Your task to perform on an android device: open the mobile data screen to see how much data has been used Image 0: 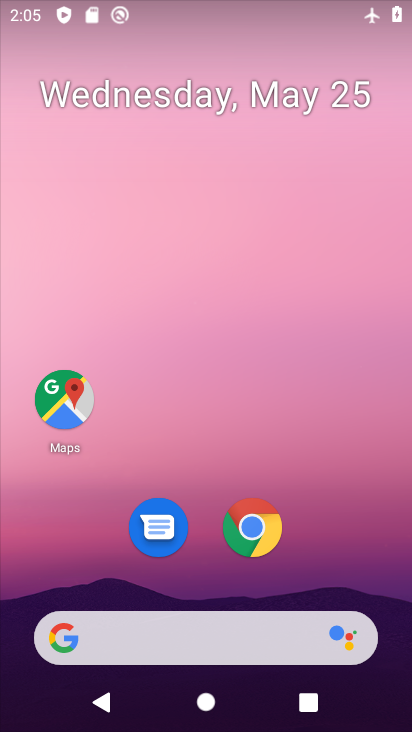
Step 0: drag from (178, 544) to (233, 113)
Your task to perform on an android device: open the mobile data screen to see how much data has been used Image 1: 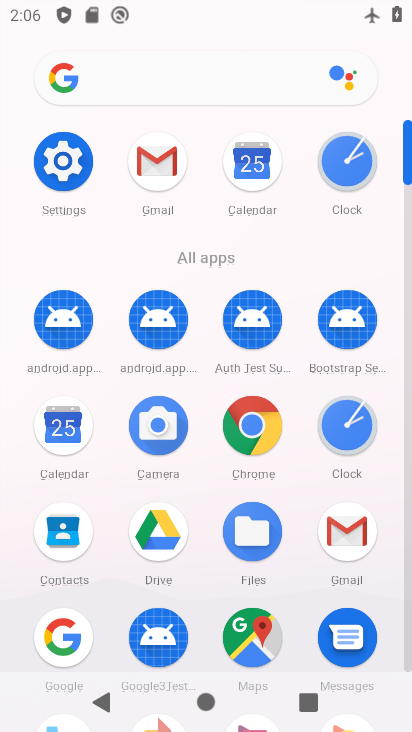
Step 1: click (44, 163)
Your task to perform on an android device: open the mobile data screen to see how much data has been used Image 2: 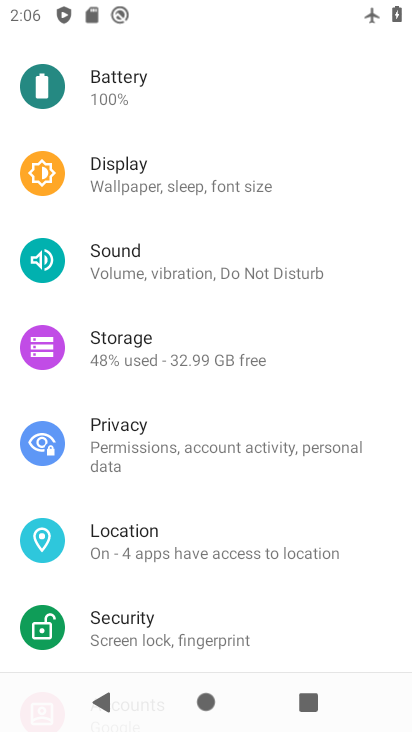
Step 2: drag from (254, 173) to (211, 570)
Your task to perform on an android device: open the mobile data screen to see how much data has been used Image 3: 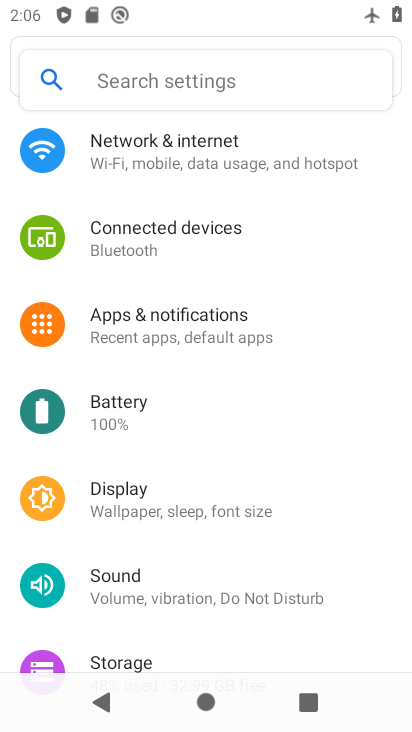
Step 3: click (203, 156)
Your task to perform on an android device: open the mobile data screen to see how much data has been used Image 4: 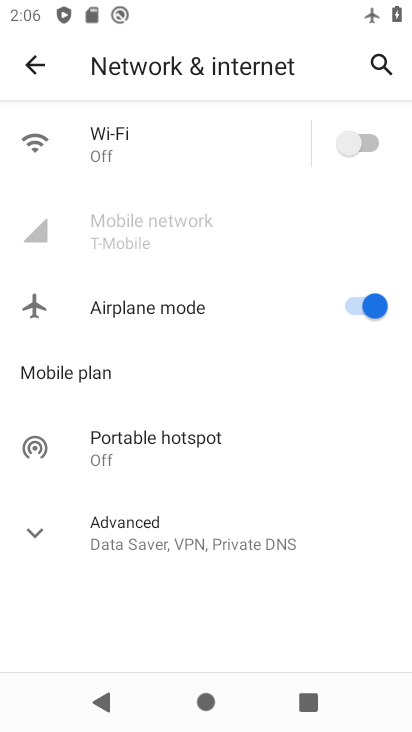
Step 4: click (362, 303)
Your task to perform on an android device: open the mobile data screen to see how much data has been used Image 5: 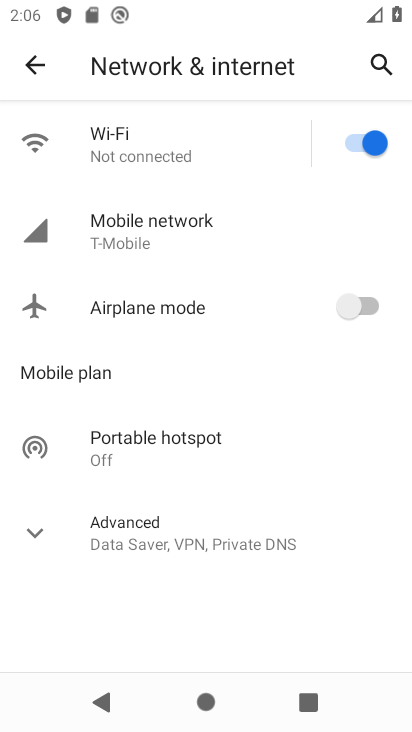
Step 5: click (180, 224)
Your task to perform on an android device: open the mobile data screen to see how much data has been used Image 6: 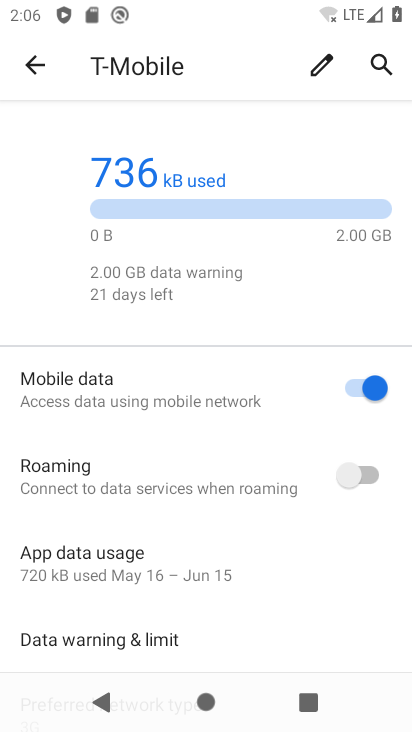
Step 6: click (148, 571)
Your task to perform on an android device: open the mobile data screen to see how much data has been used Image 7: 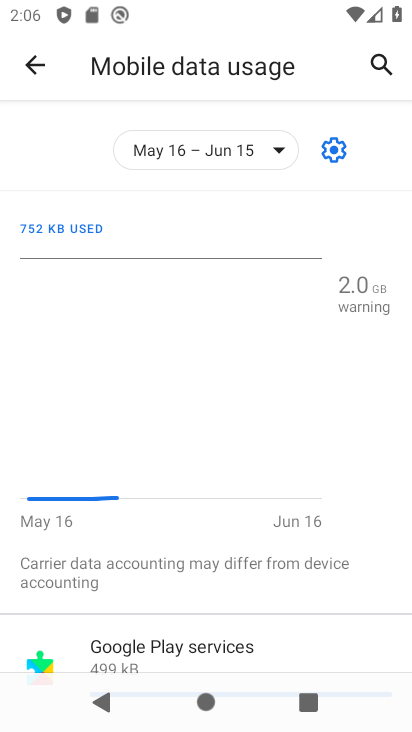
Step 7: task complete